Your task to perform on an android device: check android version Image 0: 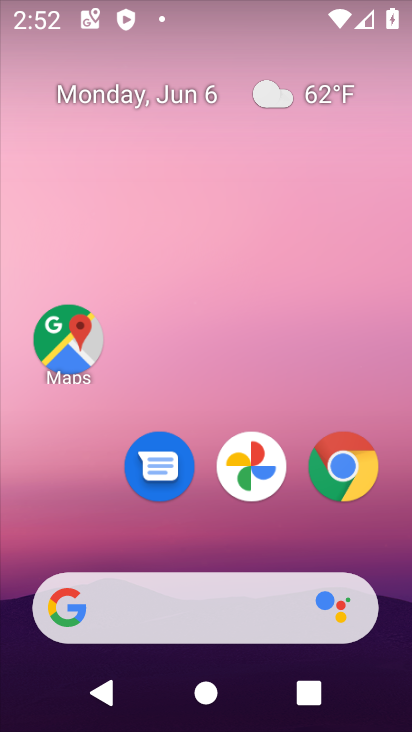
Step 0: drag from (271, 682) to (269, 439)
Your task to perform on an android device: check android version Image 1: 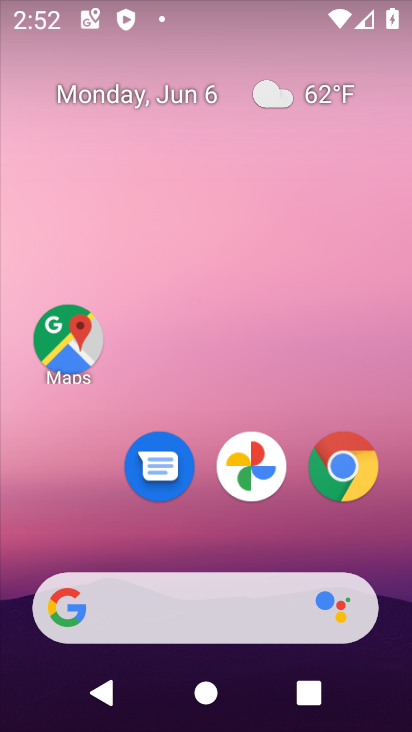
Step 1: drag from (270, 666) to (277, 282)
Your task to perform on an android device: check android version Image 2: 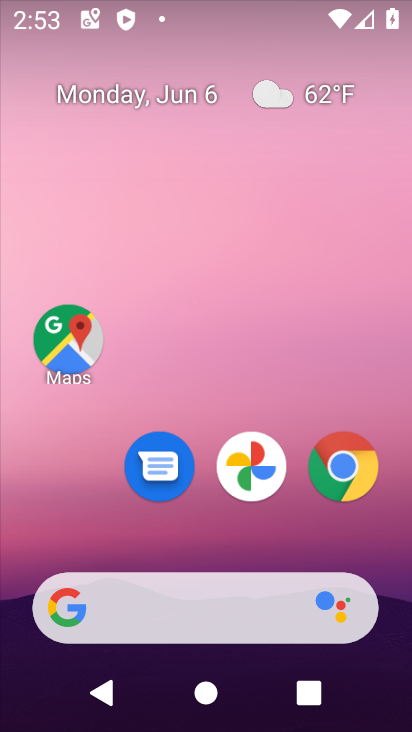
Step 2: click (149, 65)
Your task to perform on an android device: check android version Image 3: 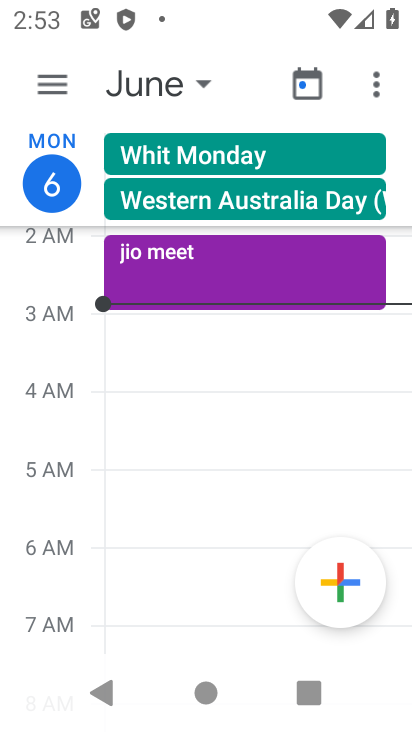
Step 3: press back button
Your task to perform on an android device: check android version Image 4: 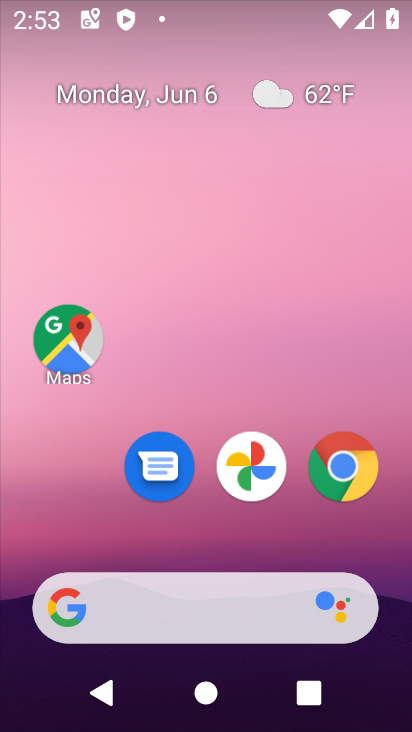
Step 4: drag from (271, 671) to (297, 98)
Your task to perform on an android device: check android version Image 5: 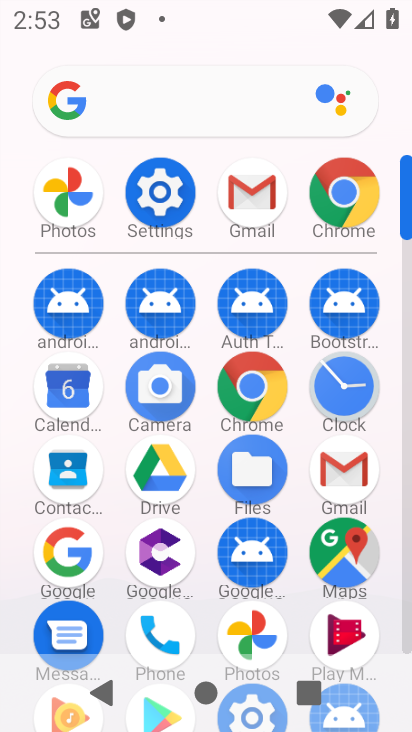
Step 5: drag from (196, 377) to (166, 147)
Your task to perform on an android device: check android version Image 6: 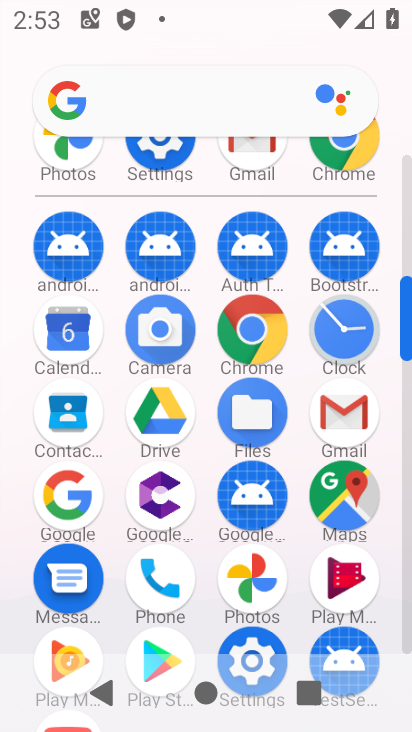
Step 6: drag from (195, 472) to (195, 124)
Your task to perform on an android device: check android version Image 7: 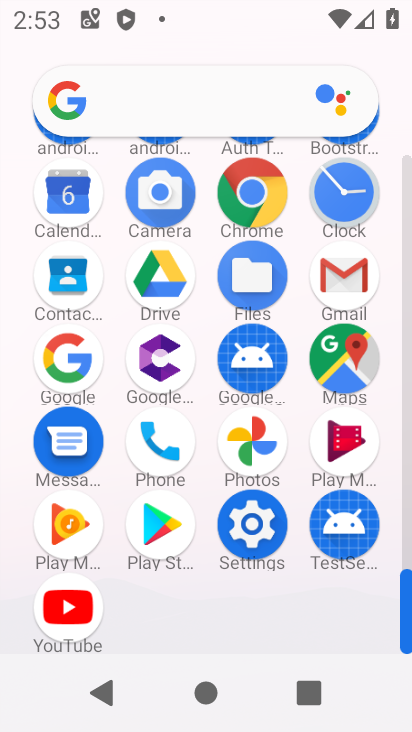
Step 7: click (257, 527)
Your task to perform on an android device: check android version Image 8: 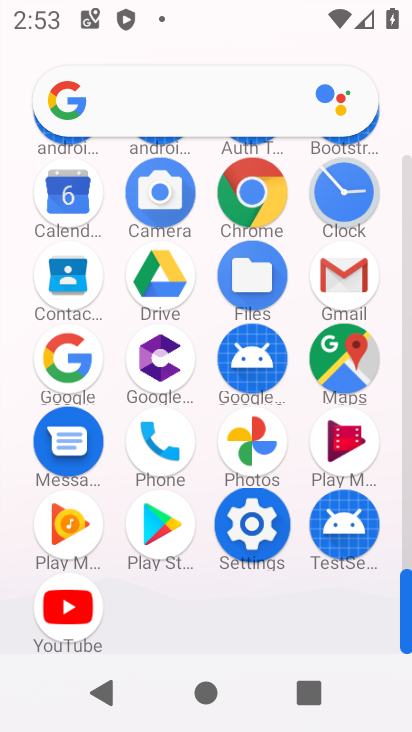
Step 8: click (254, 526)
Your task to perform on an android device: check android version Image 9: 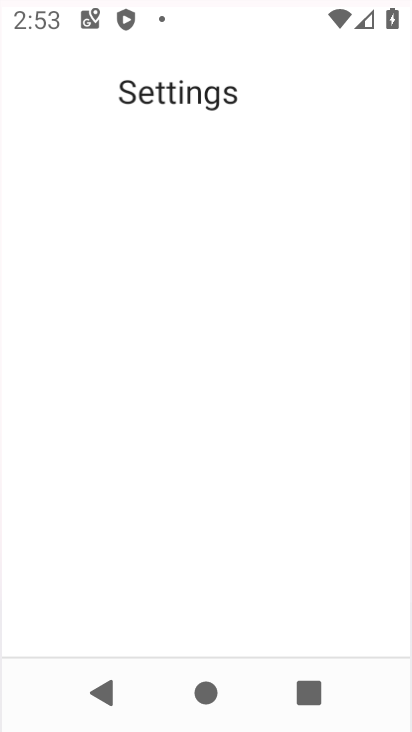
Step 9: click (243, 513)
Your task to perform on an android device: check android version Image 10: 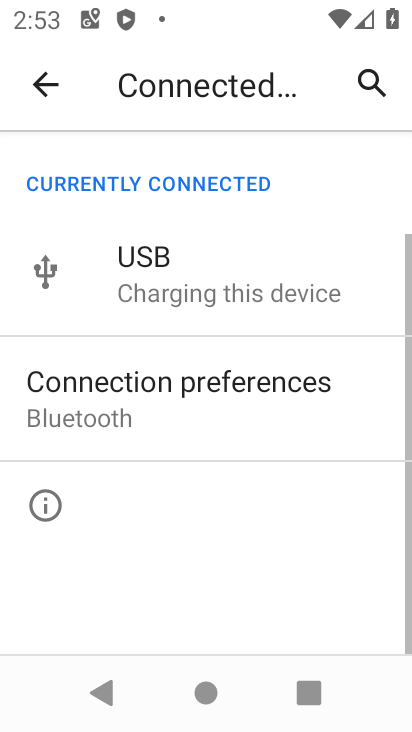
Step 10: drag from (220, 513) to (211, 202)
Your task to perform on an android device: check android version Image 11: 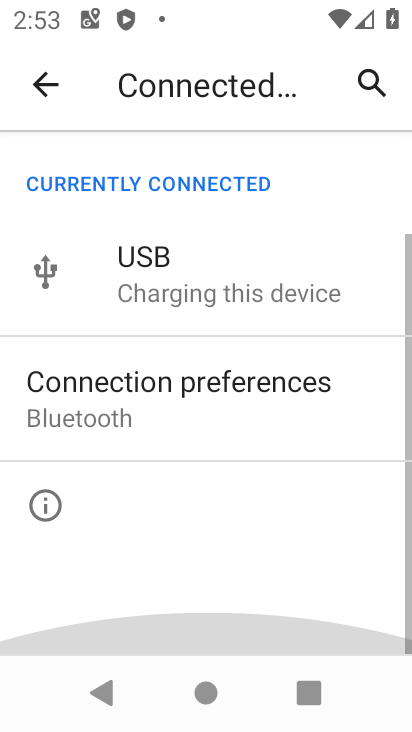
Step 11: drag from (194, 357) to (175, 221)
Your task to perform on an android device: check android version Image 12: 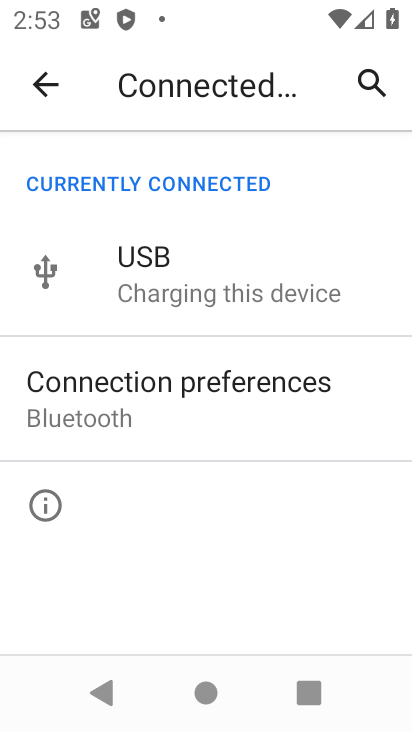
Step 12: click (31, 100)
Your task to perform on an android device: check android version Image 13: 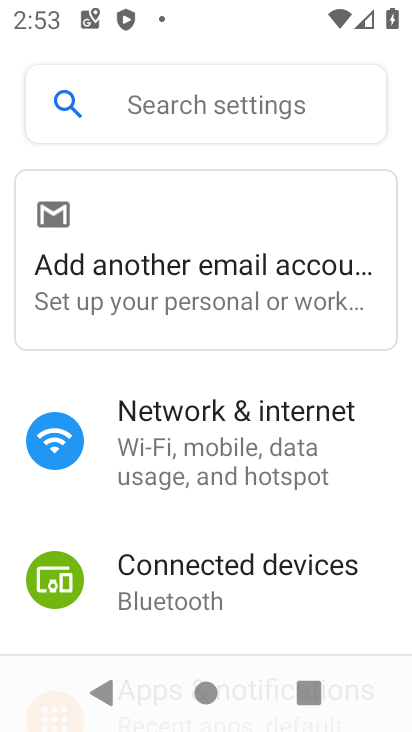
Step 13: drag from (200, 490) to (222, 190)
Your task to perform on an android device: check android version Image 14: 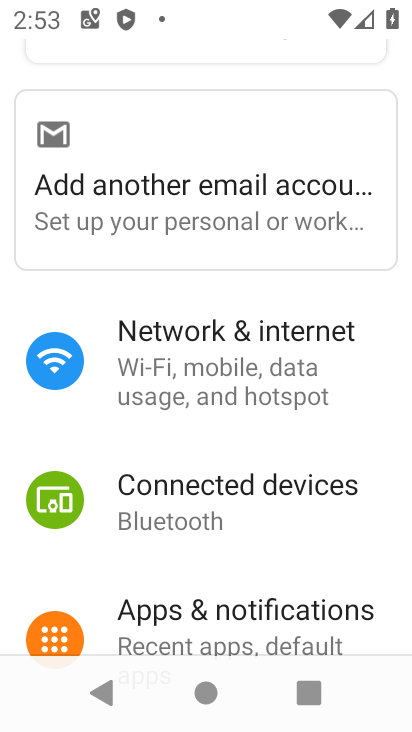
Step 14: drag from (234, 438) to (227, 170)
Your task to perform on an android device: check android version Image 15: 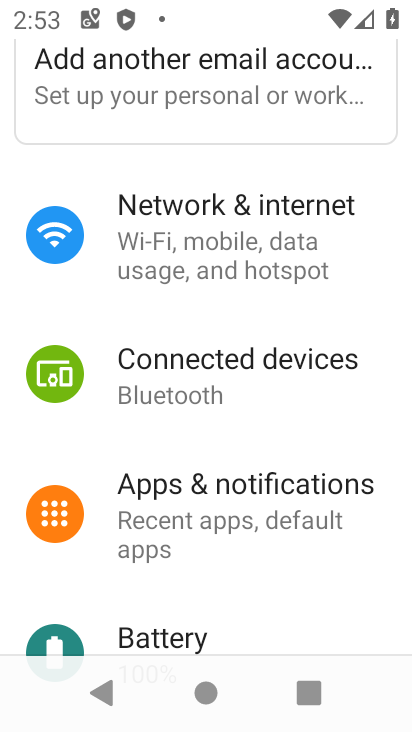
Step 15: drag from (232, 446) to (208, 196)
Your task to perform on an android device: check android version Image 16: 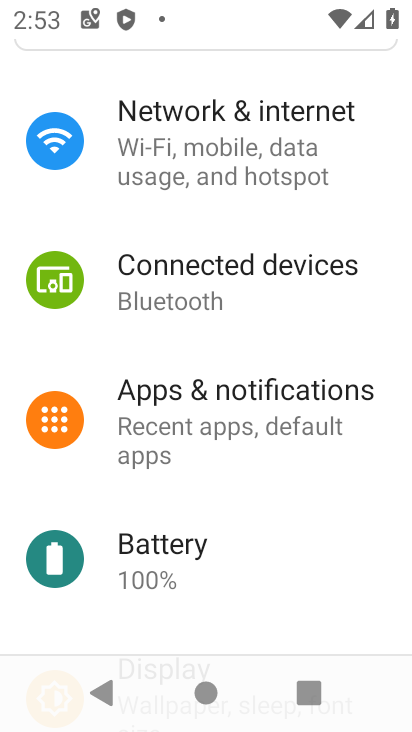
Step 16: drag from (213, 416) to (193, 129)
Your task to perform on an android device: check android version Image 17: 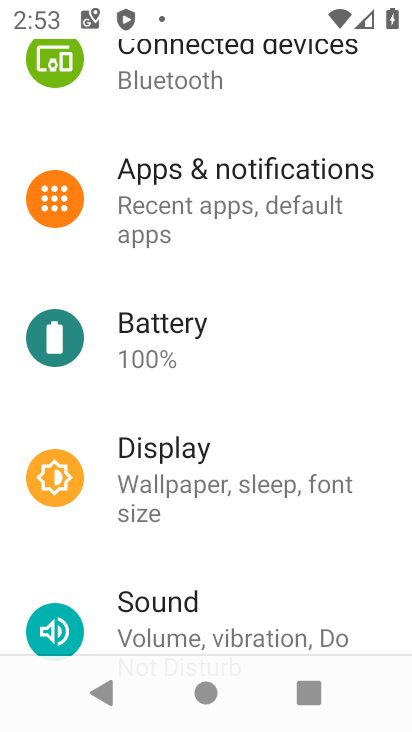
Step 17: drag from (200, 547) to (185, 231)
Your task to perform on an android device: check android version Image 18: 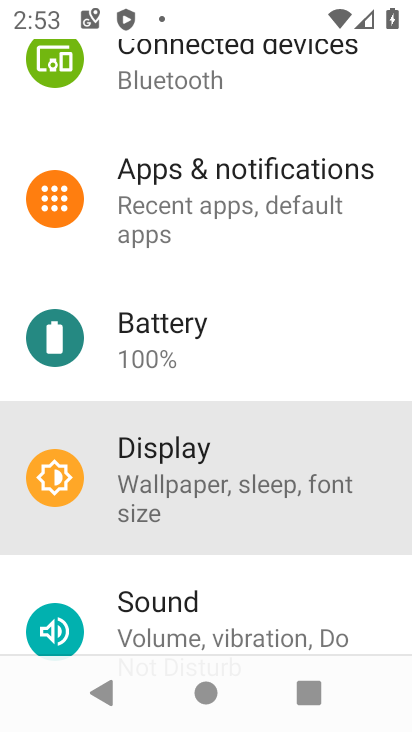
Step 18: drag from (198, 442) to (199, 209)
Your task to perform on an android device: check android version Image 19: 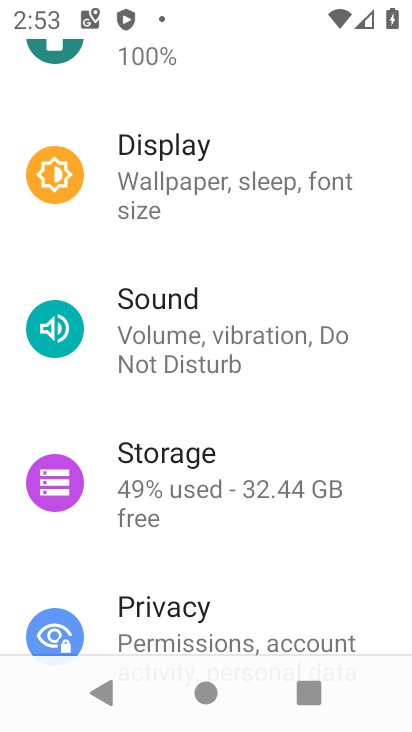
Step 19: drag from (226, 443) to (202, 144)
Your task to perform on an android device: check android version Image 20: 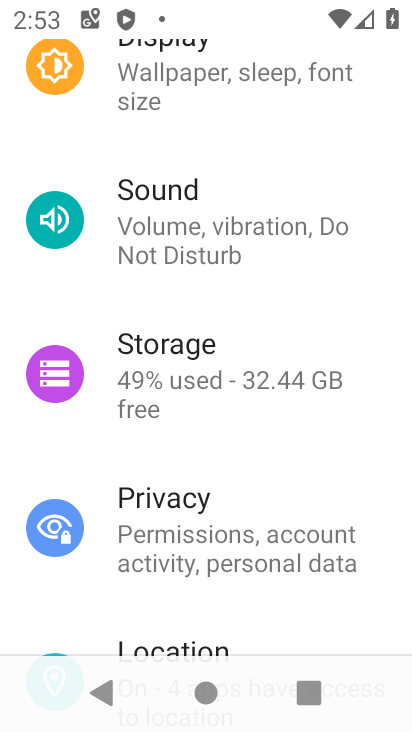
Step 20: drag from (177, 544) to (163, 254)
Your task to perform on an android device: check android version Image 21: 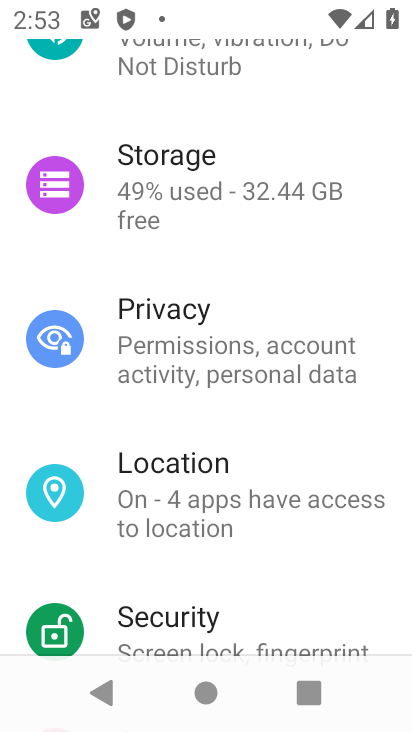
Step 21: drag from (181, 590) to (171, 229)
Your task to perform on an android device: check android version Image 22: 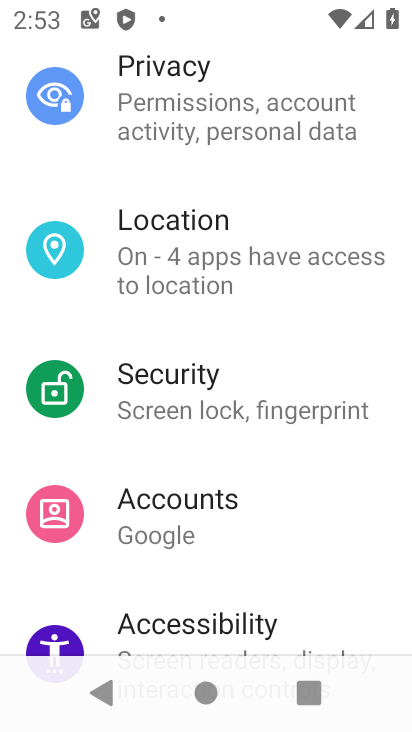
Step 22: drag from (204, 525) to (195, 266)
Your task to perform on an android device: check android version Image 23: 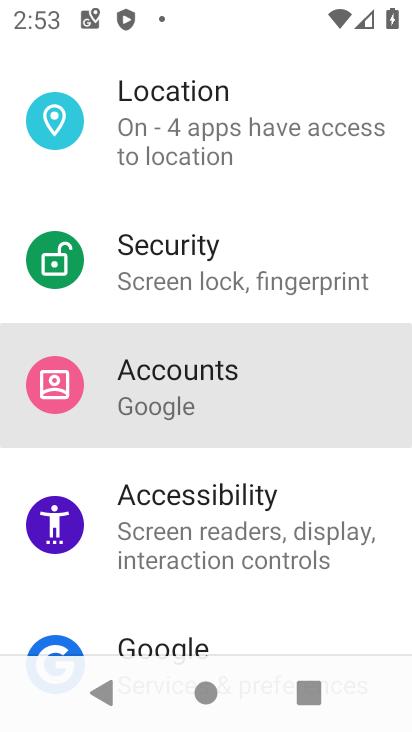
Step 23: drag from (228, 543) to (234, 313)
Your task to perform on an android device: check android version Image 24: 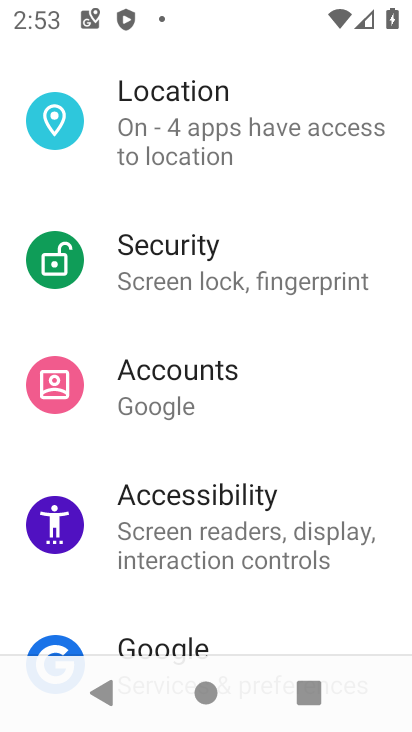
Step 24: drag from (270, 561) to (241, 341)
Your task to perform on an android device: check android version Image 25: 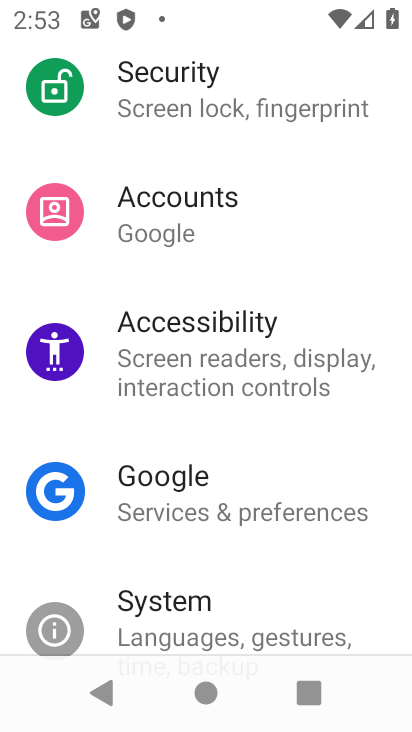
Step 25: drag from (199, 512) to (177, 315)
Your task to perform on an android device: check android version Image 26: 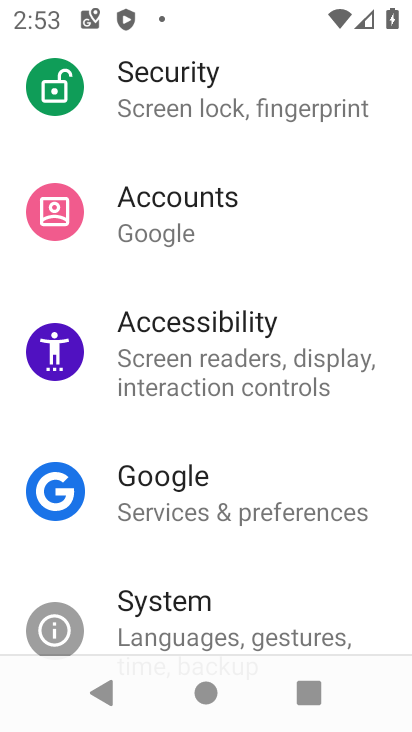
Step 26: drag from (191, 557) to (189, 246)
Your task to perform on an android device: check android version Image 27: 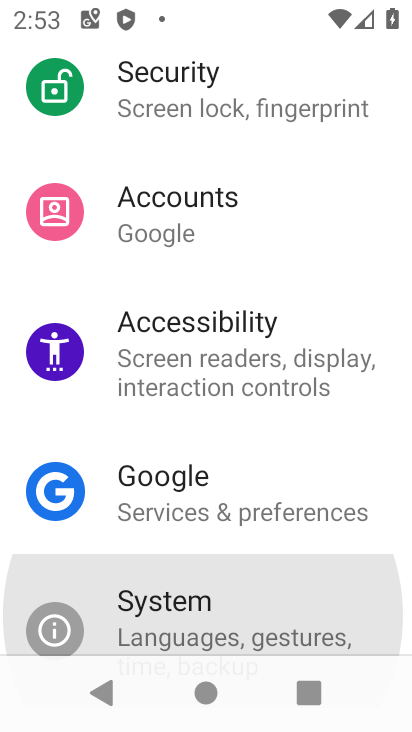
Step 27: drag from (210, 551) to (164, 210)
Your task to perform on an android device: check android version Image 28: 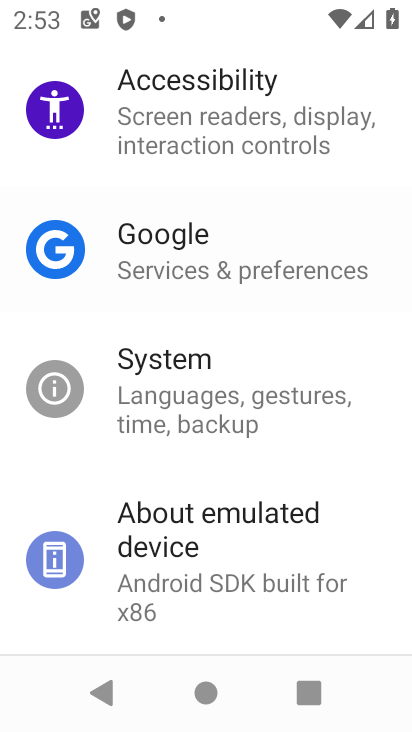
Step 28: drag from (178, 475) to (178, 303)
Your task to perform on an android device: check android version Image 29: 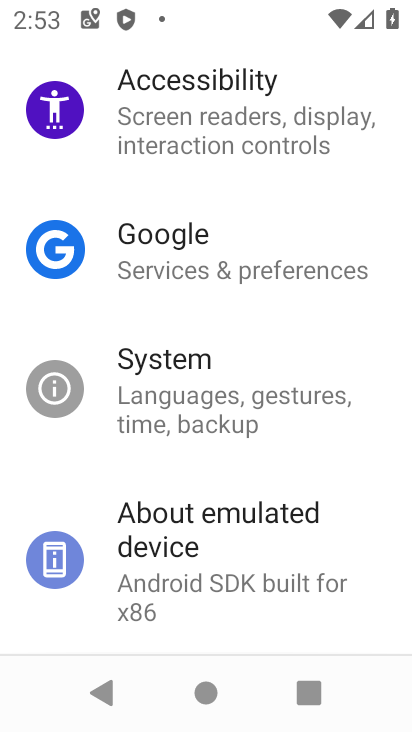
Step 29: drag from (188, 524) to (183, 385)
Your task to perform on an android device: check android version Image 30: 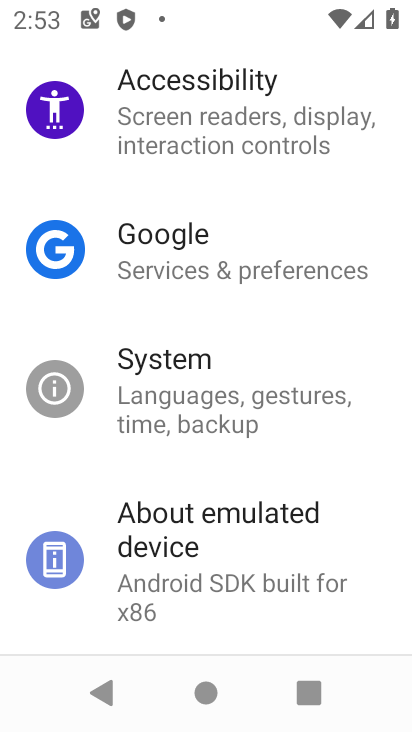
Step 30: click (174, 567)
Your task to perform on an android device: check android version Image 31: 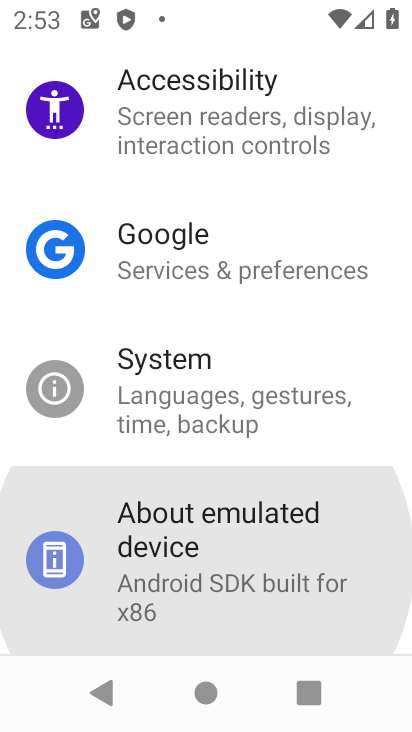
Step 31: click (174, 563)
Your task to perform on an android device: check android version Image 32: 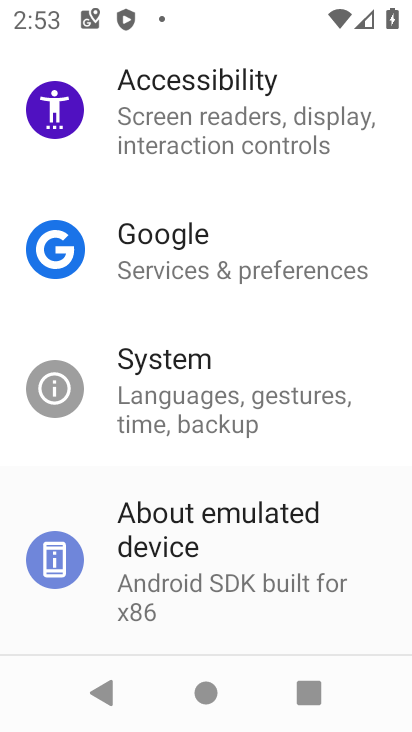
Step 32: click (173, 561)
Your task to perform on an android device: check android version Image 33: 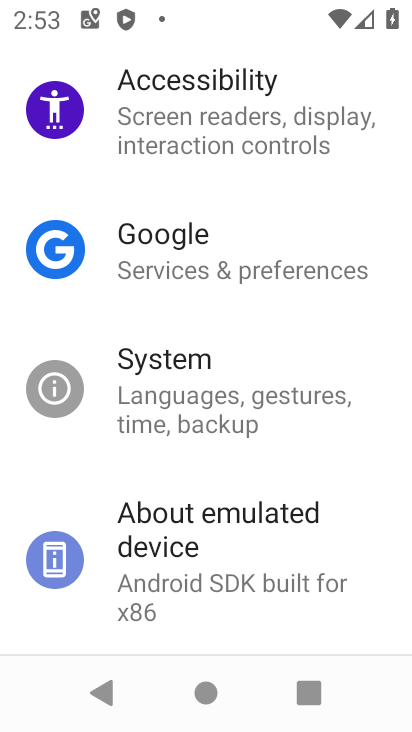
Step 33: click (165, 552)
Your task to perform on an android device: check android version Image 34: 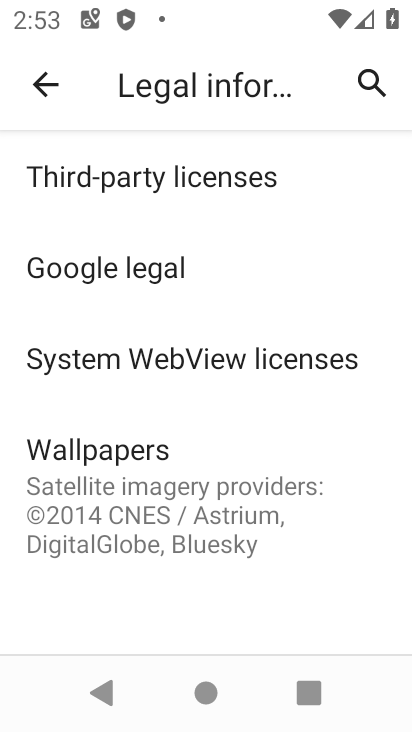
Step 34: click (46, 79)
Your task to perform on an android device: check android version Image 35: 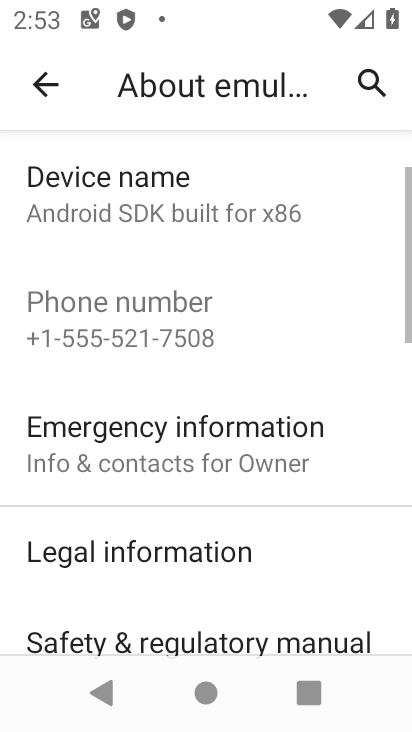
Step 35: task complete